Your task to perform on an android device: See recent photos Image 0: 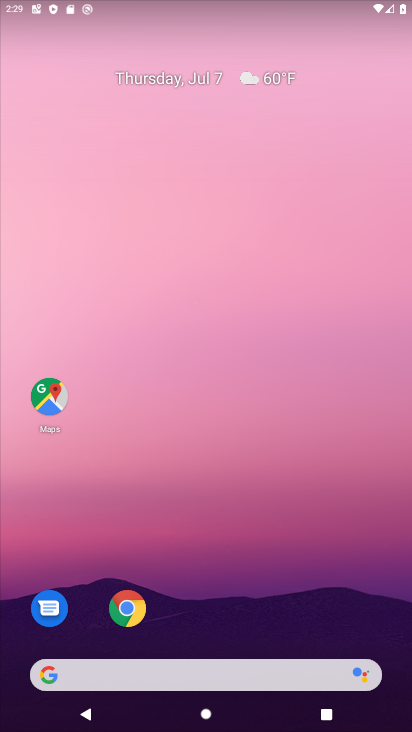
Step 0: drag from (213, 642) to (261, 119)
Your task to perform on an android device: See recent photos Image 1: 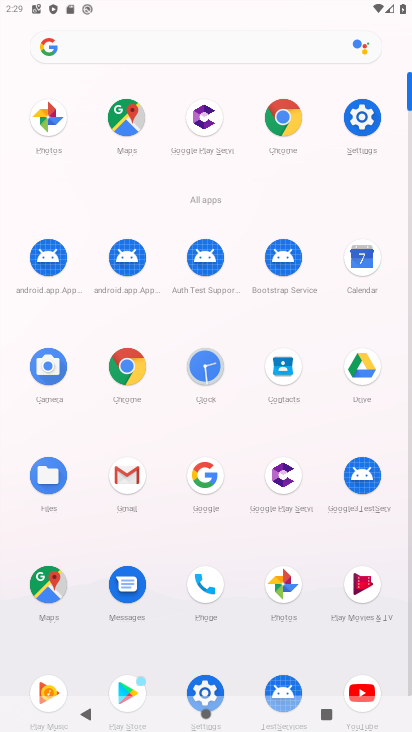
Step 1: click (283, 583)
Your task to perform on an android device: See recent photos Image 2: 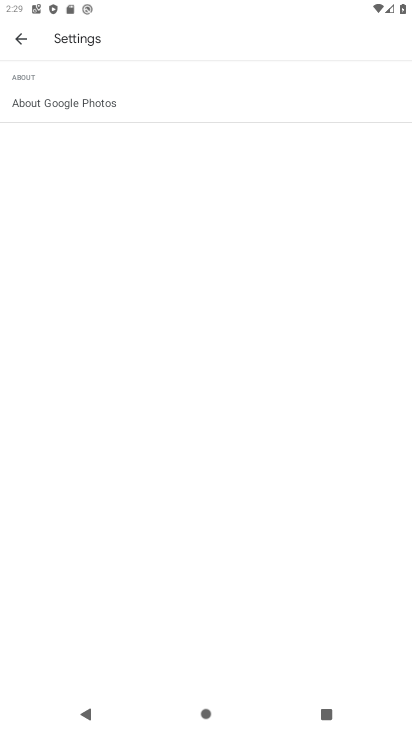
Step 2: click (18, 39)
Your task to perform on an android device: See recent photos Image 3: 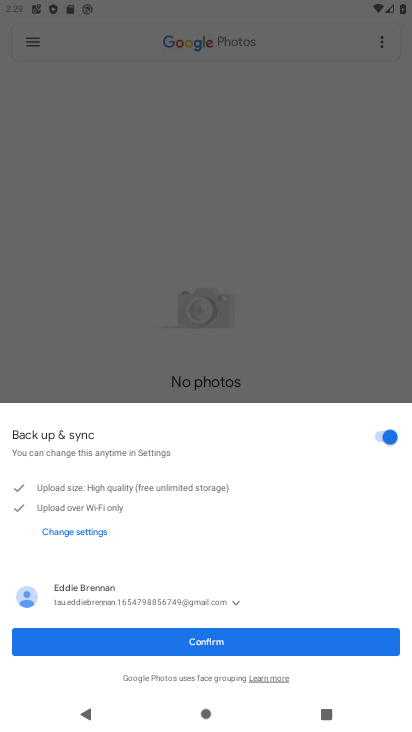
Step 3: click (206, 644)
Your task to perform on an android device: See recent photos Image 4: 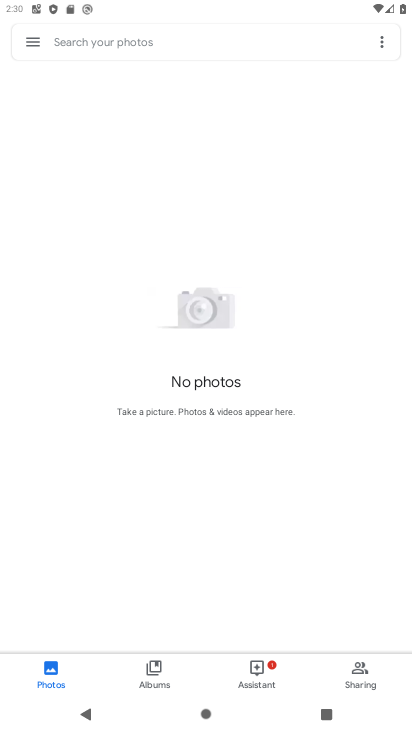
Step 4: task complete